Your task to perform on an android device: turn on improve location accuracy Image 0: 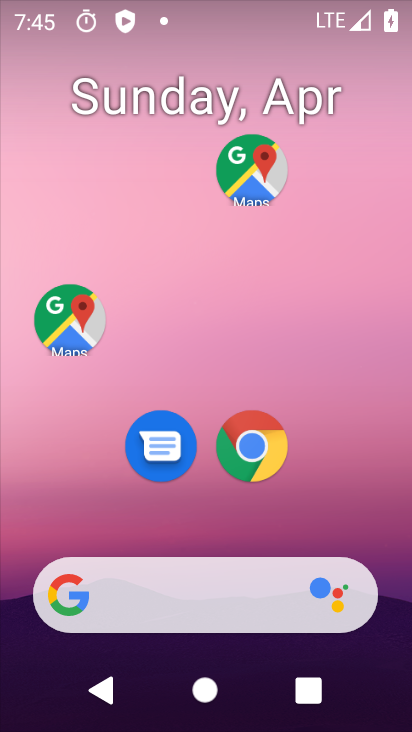
Step 0: drag from (219, 566) to (212, 15)
Your task to perform on an android device: turn on improve location accuracy Image 1: 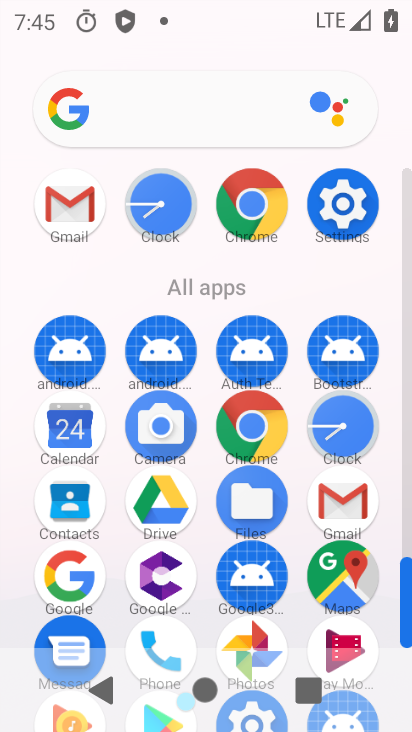
Step 1: click (336, 201)
Your task to perform on an android device: turn on improve location accuracy Image 2: 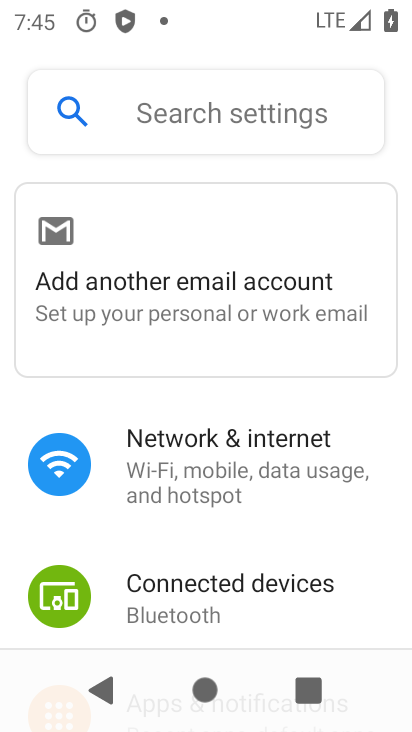
Step 2: drag from (259, 504) to (202, 5)
Your task to perform on an android device: turn on improve location accuracy Image 3: 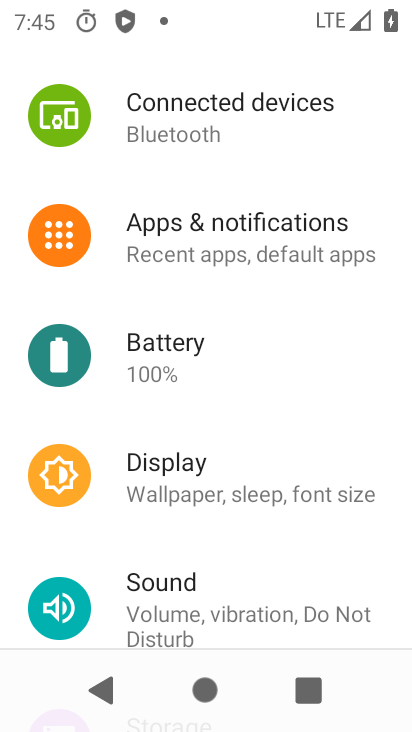
Step 3: drag from (271, 507) to (237, 0)
Your task to perform on an android device: turn on improve location accuracy Image 4: 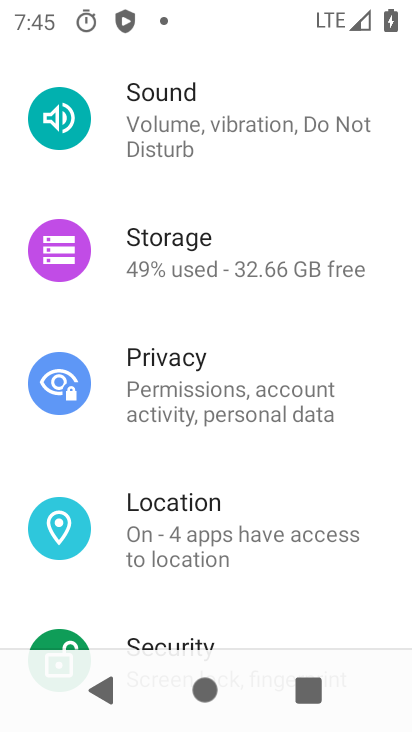
Step 4: click (210, 511)
Your task to perform on an android device: turn on improve location accuracy Image 5: 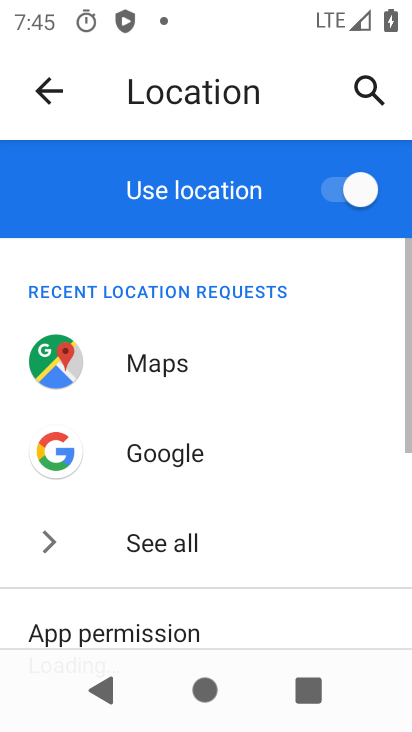
Step 5: drag from (213, 587) to (192, 83)
Your task to perform on an android device: turn on improve location accuracy Image 6: 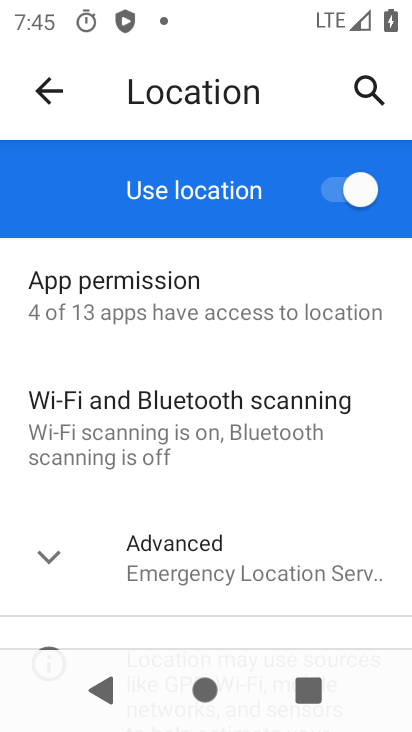
Step 6: click (206, 553)
Your task to perform on an android device: turn on improve location accuracy Image 7: 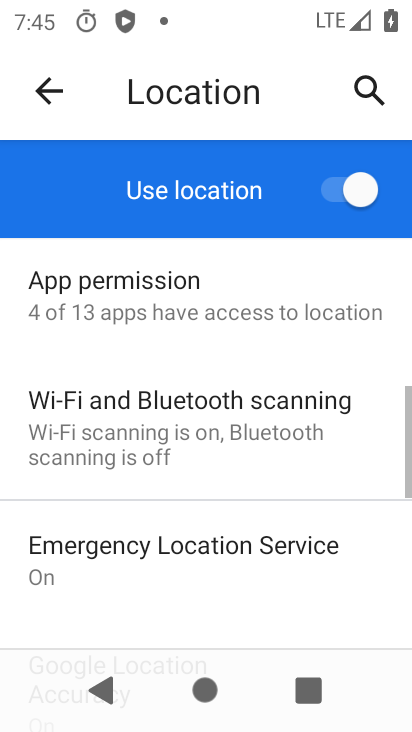
Step 7: drag from (206, 553) to (169, 249)
Your task to perform on an android device: turn on improve location accuracy Image 8: 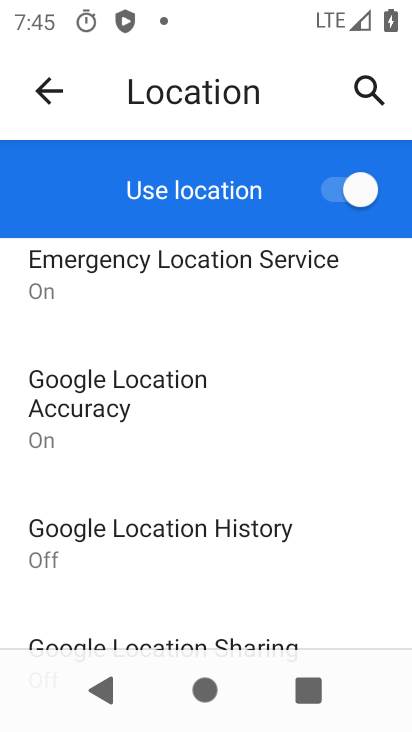
Step 8: click (151, 396)
Your task to perform on an android device: turn on improve location accuracy Image 9: 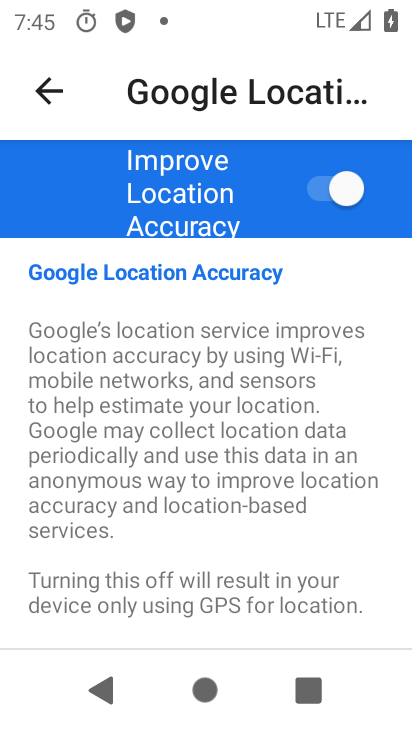
Step 9: task complete